Your task to perform on an android device: What's on my calendar today? Image 0: 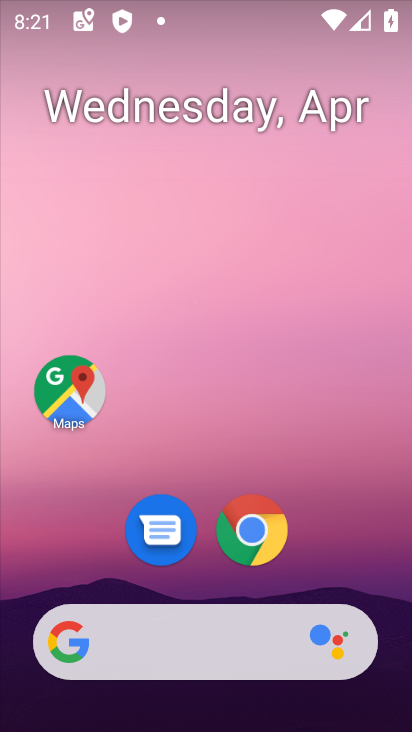
Step 0: drag from (341, 558) to (343, 222)
Your task to perform on an android device: What's on my calendar today? Image 1: 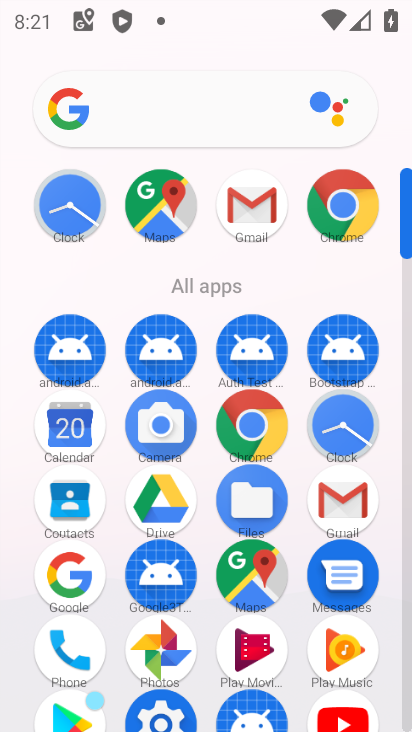
Step 1: click (76, 435)
Your task to perform on an android device: What's on my calendar today? Image 2: 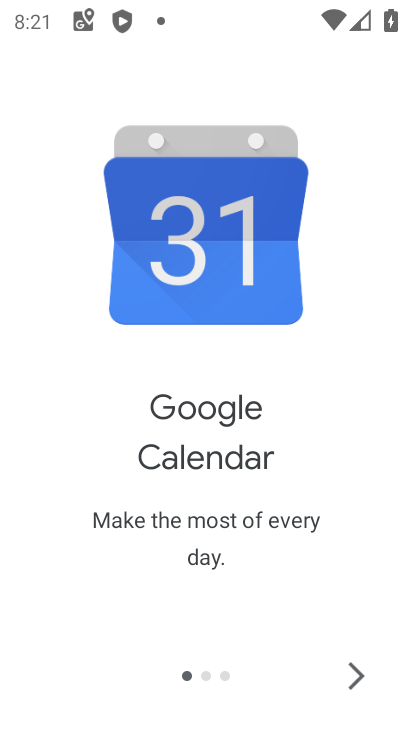
Step 2: click (351, 668)
Your task to perform on an android device: What's on my calendar today? Image 3: 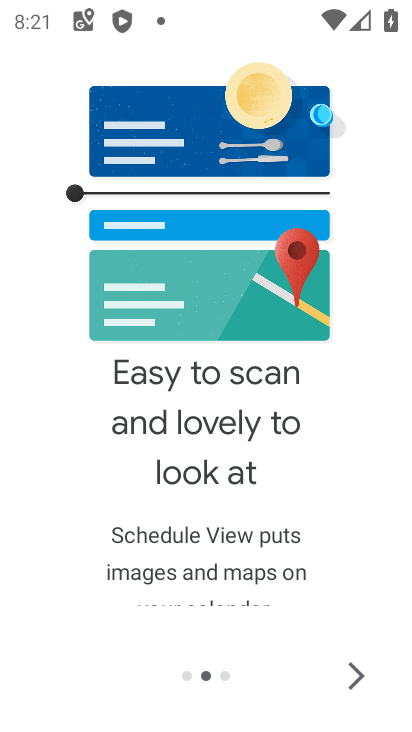
Step 3: click (351, 668)
Your task to perform on an android device: What's on my calendar today? Image 4: 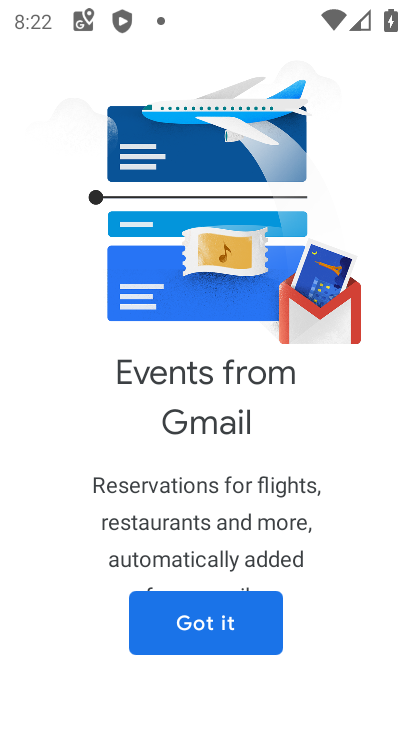
Step 4: click (240, 644)
Your task to perform on an android device: What's on my calendar today? Image 5: 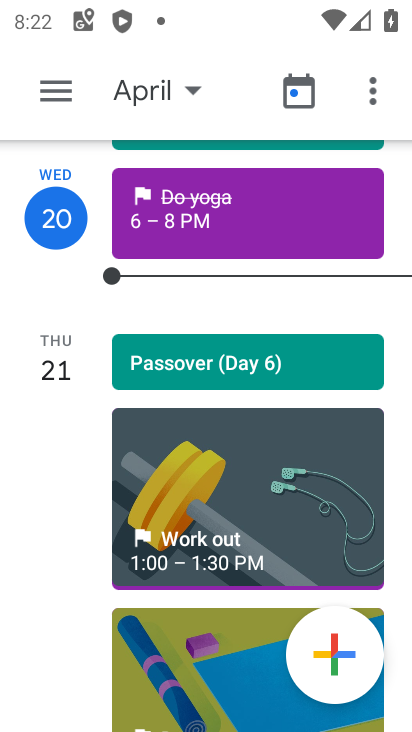
Step 5: click (151, 86)
Your task to perform on an android device: What's on my calendar today? Image 6: 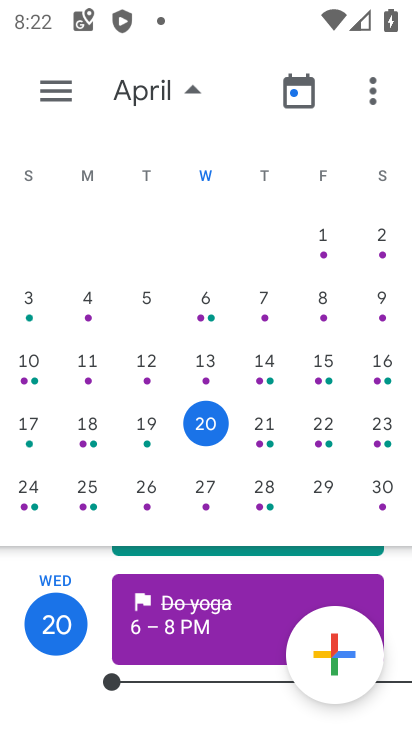
Step 6: click (266, 435)
Your task to perform on an android device: What's on my calendar today? Image 7: 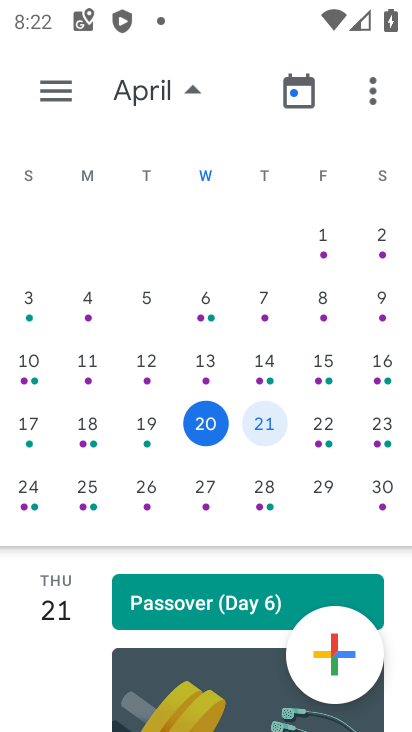
Step 7: click (197, 94)
Your task to perform on an android device: What's on my calendar today? Image 8: 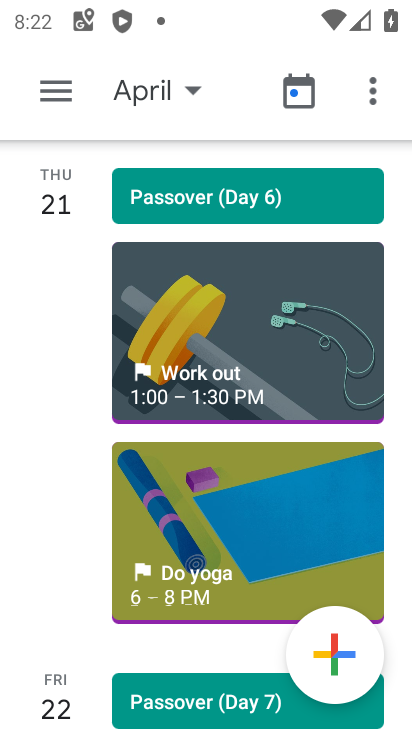
Step 8: task complete